Your task to perform on an android device: Open privacy settings Image 0: 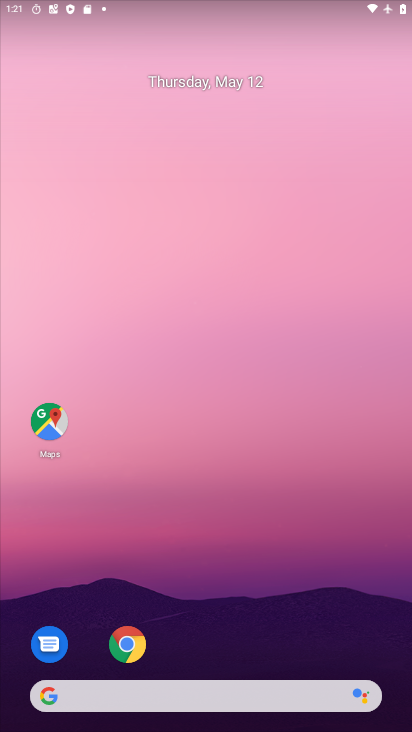
Step 0: drag from (288, 536) to (215, 55)
Your task to perform on an android device: Open privacy settings Image 1: 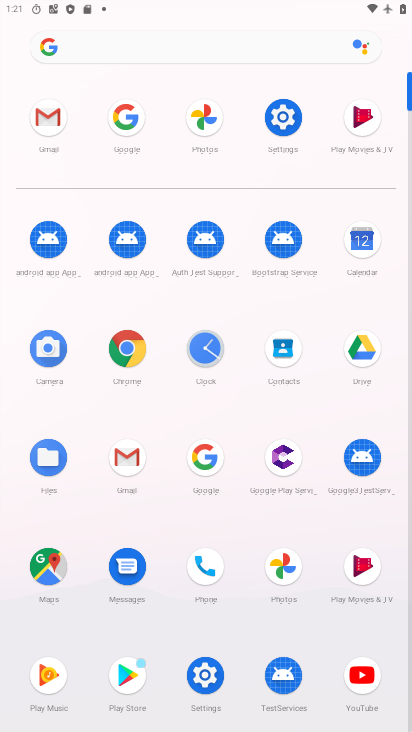
Step 1: click (280, 117)
Your task to perform on an android device: Open privacy settings Image 2: 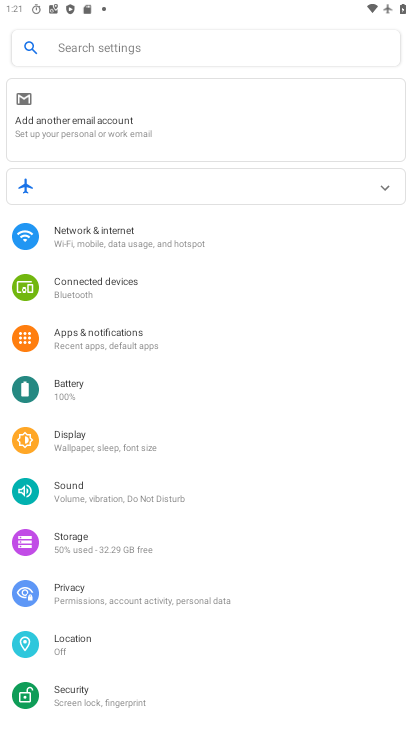
Step 2: click (126, 594)
Your task to perform on an android device: Open privacy settings Image 3: 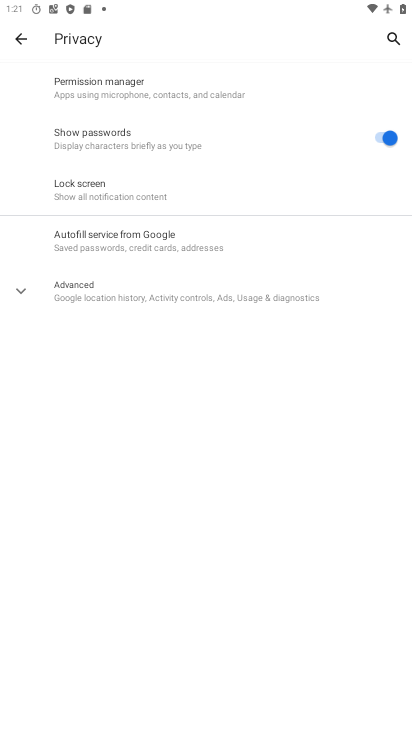
Step 3: task complete